Your task to perform on an android device: toggle airplane mode Image 0: 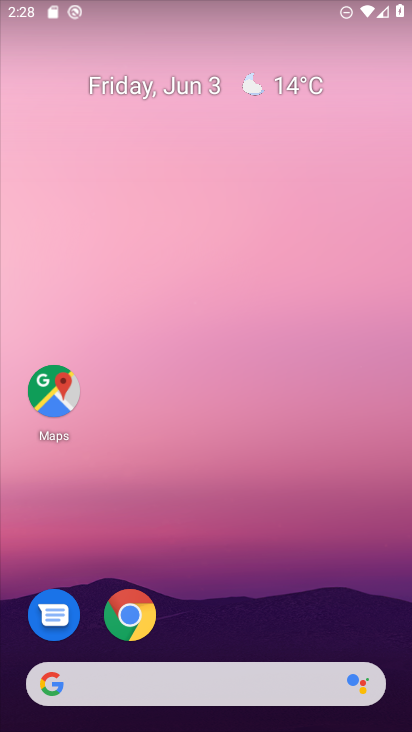
Step 0: click (219, 16)
Your task to perform on an android device: toggle airplane mode Image 1: 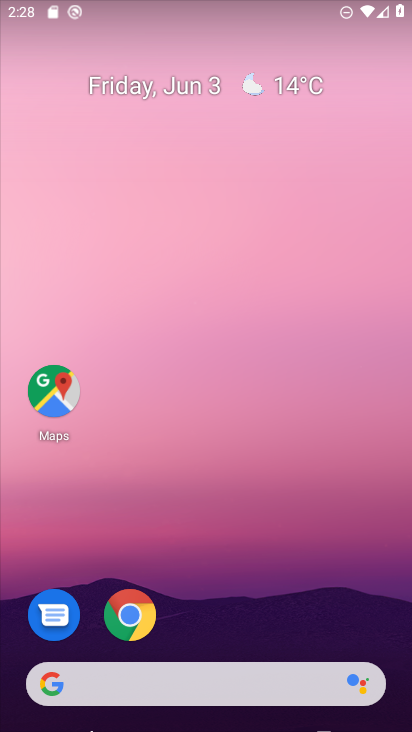
Step 1: drag from (212, 606) to (218, 18)
Your task to perform on an android device: toggle airplane mode Image 2: 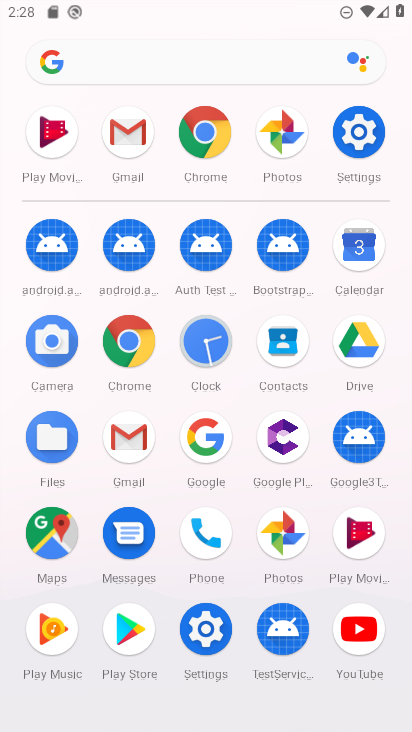
Step 2: click (349, 136)
Your task to perform on an android device: toggle airplane mode Image 3: 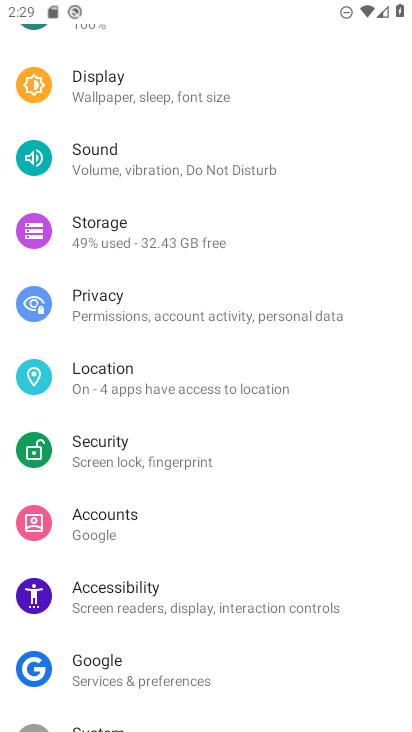
Step 3: drag from (177, 200) to (236, 723)
Your task to perform on an android device: toggle airplane mode Image 4: 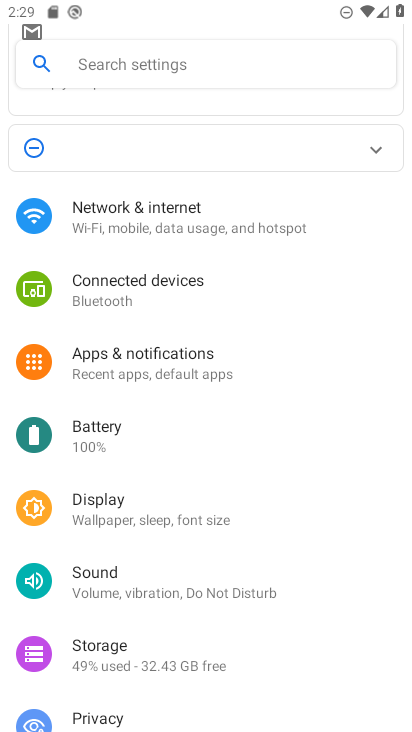
Step 4: click (166, 218)
Your task to perform on an android device: toggle airplane mode Image 5: 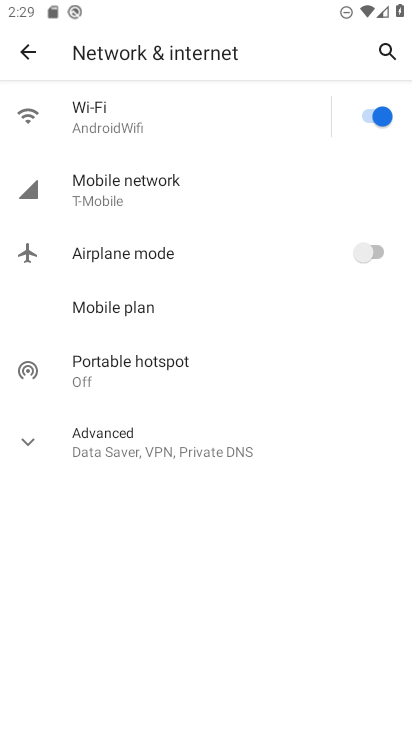
Step 5: drag from (157, 469) to (224, 204)
Your task to perform on an android device: toggle airplane mode Image 6: 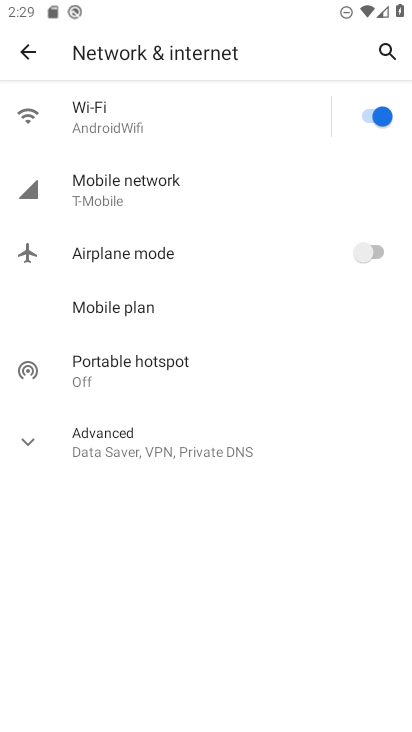
Step 6: click (155, 272)
Your task to perform on an android device: toggle airplane mode Image 7: 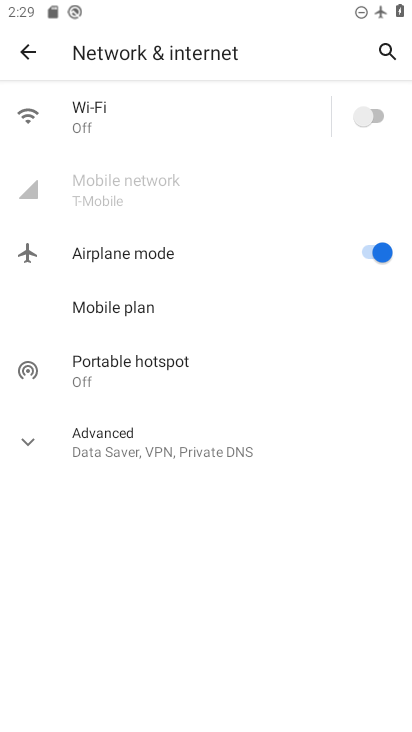
Step 7: task complete